Your task to perform on an android device: change the clock display to analog Image 0: 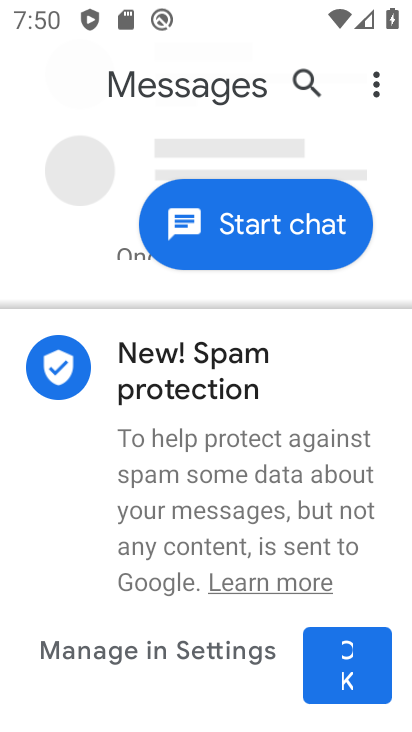
Step 0: press home button
Your task to perform on an android device: change the clock display to analog Image 1: 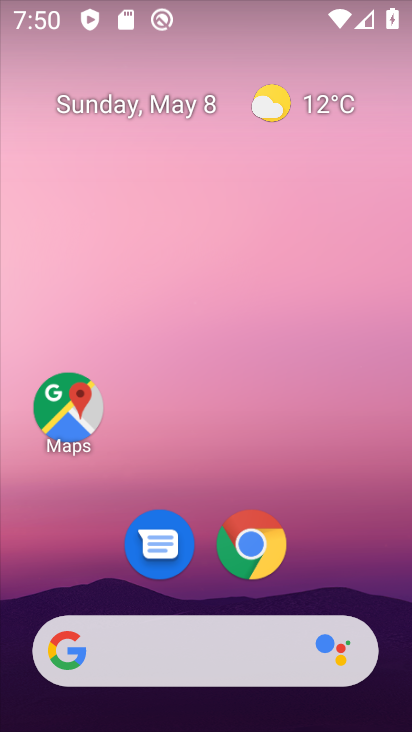
Step 1: drag from (348, 559) to (239, 83)
Your task to perform on an android device: change the clock display to analog Image 2: 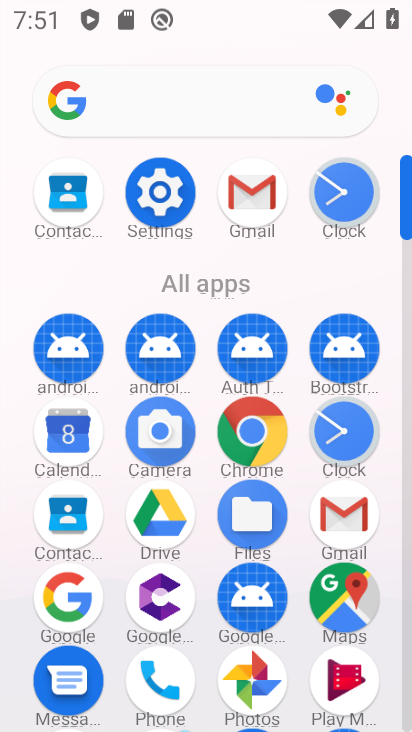
Step 2: click (344, 202)
Your task to perform on an android device: change the clock display to analog Image 3: 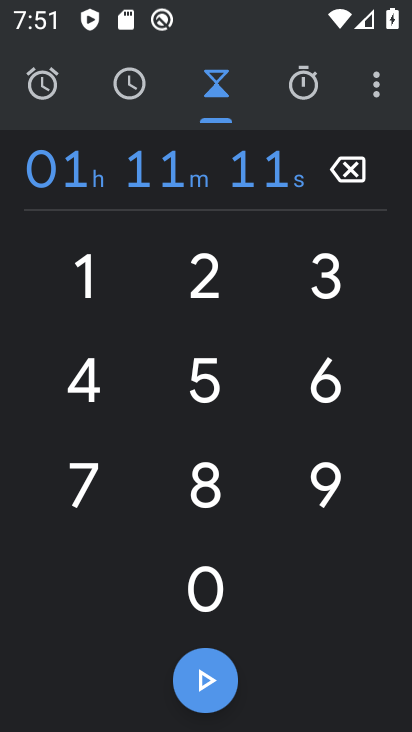
Step 3: click (377, 83)
Your task to perform on an android device: change the clock display to analog Image 4: 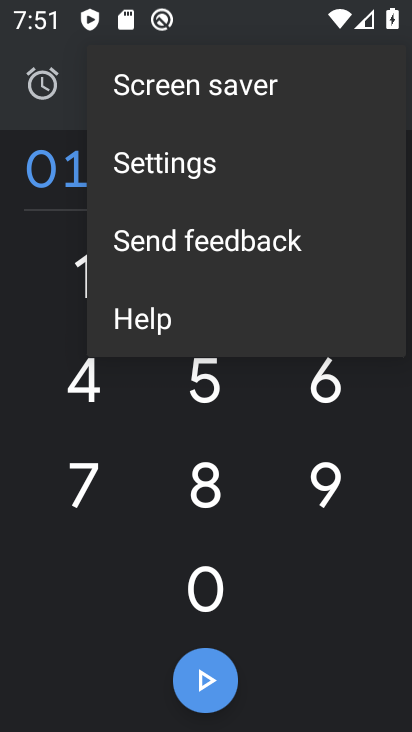
Step 4: click (154, 165)
Your task to perform on an android device: change the clock display to analog Image 5: 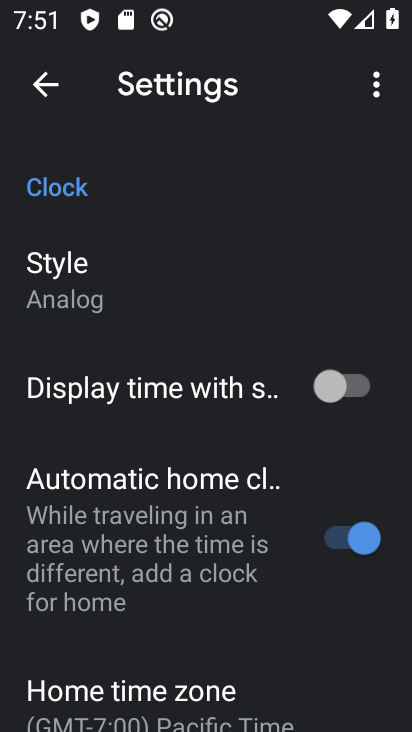
Step 5: task complete